Your task to perform on an android device: turn off javascript in the chrome app Image 0: 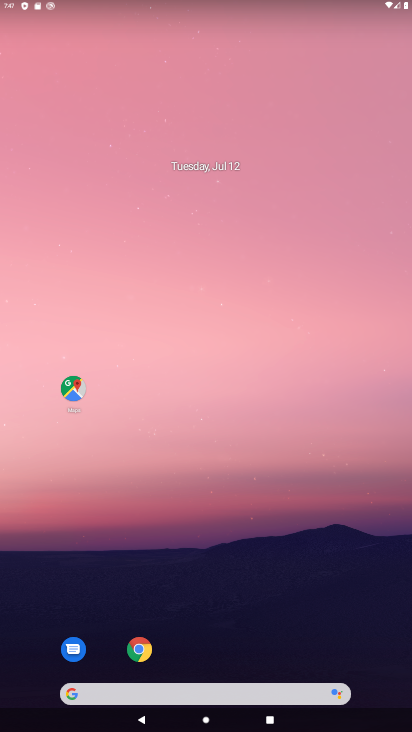
Step 0: drag from (287, 585) to (293, 91)
Your task to perform on an android device: turn off javascript in the chrome app Image 1: 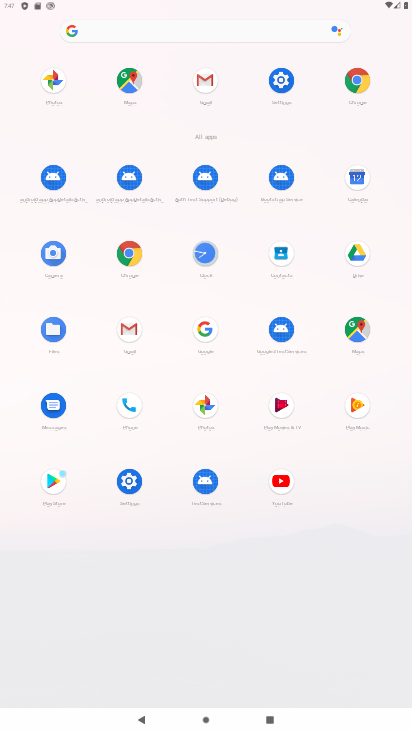
Step 1: click (361, 82)
Your task to perform on an android device: turn off javascript in the chrome app Image 2: 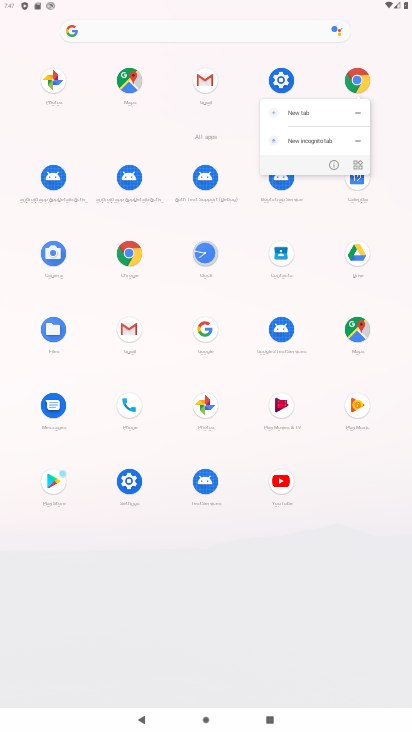
Step 2: click (356, 82)
Your task to perform on an android device: turn off javascript in the chrome app Image 3: 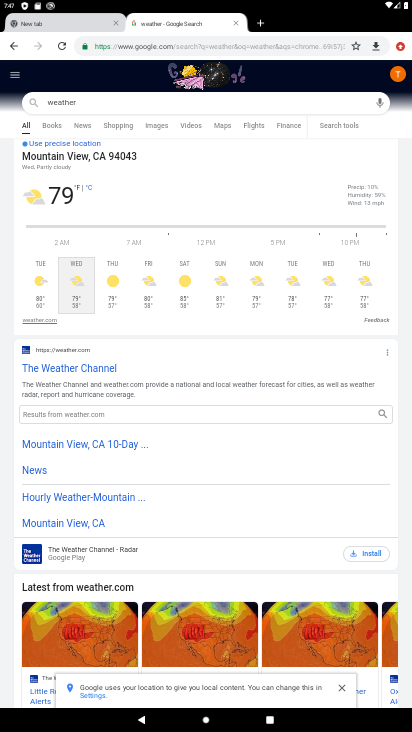
Step 3: drag from (409, 39) to (311, 319)
Your task to perform on an android device: turn off javascript in the chrome app Image 4: 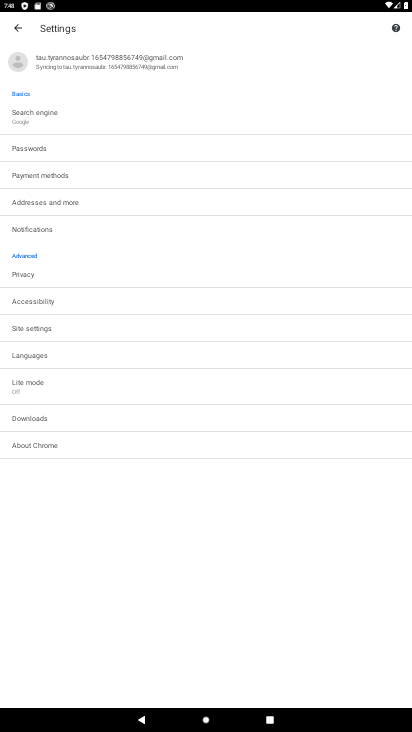
Step 4: click (71, 327)
Your task to perform on an android device: turn off javascript in the chrome app Image 5: 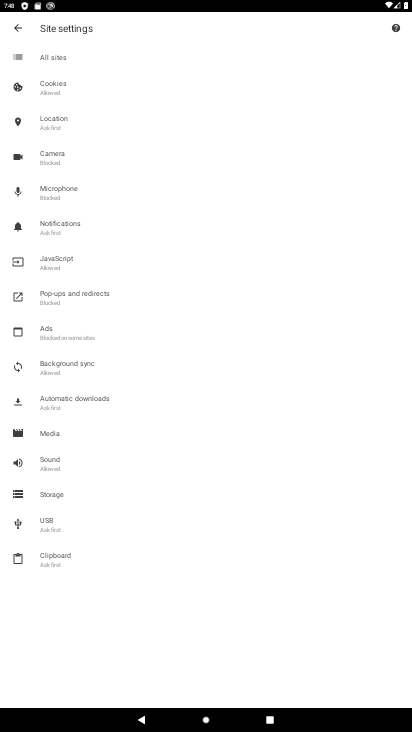
Step 5: click (55, 257)
Your task to perform on an android device: turn off javascript in the chrome app Image 6: 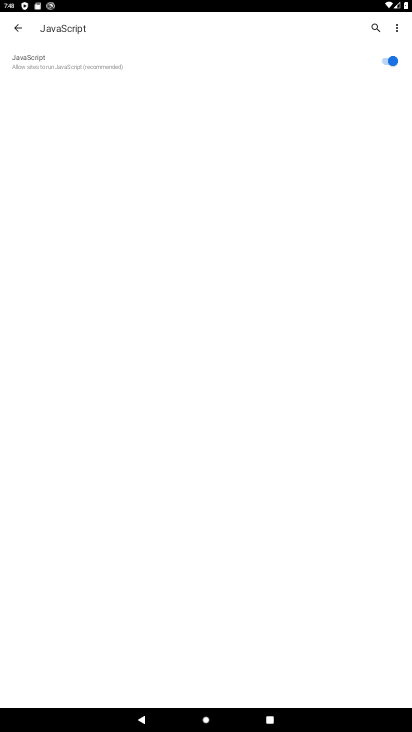
Step 6: click (385, 63)
Your task to perform on an android device: turn off javascript in the chrome app Image 7: 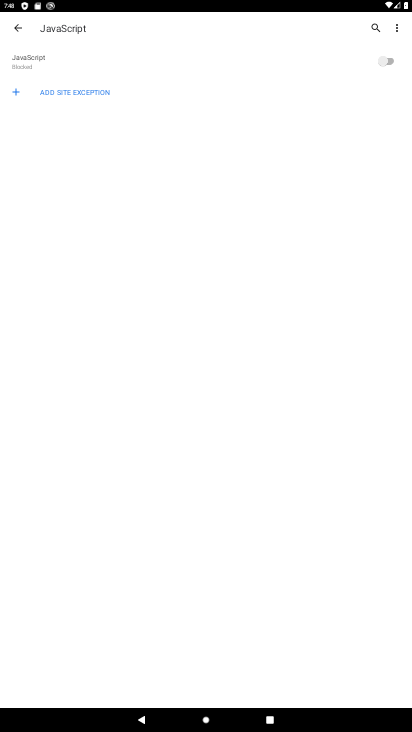
Step 7: task complete